Your task to perform on an android device: add a label to a message in the gmail app Image 0: 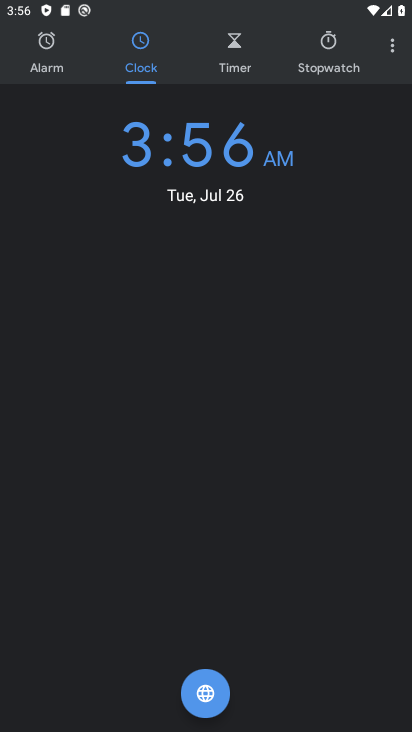
Step 0: press back button
Your task to perform on an android device: add a label to a message in the gmail app Image 1: 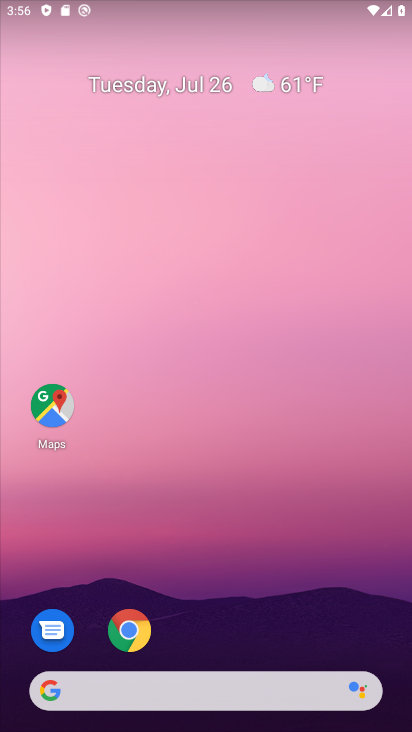
Step 1: drag from (291, 606) to (243, 97)
Your task to perform on an android device: add a label to a message in the gmail app Image 2: 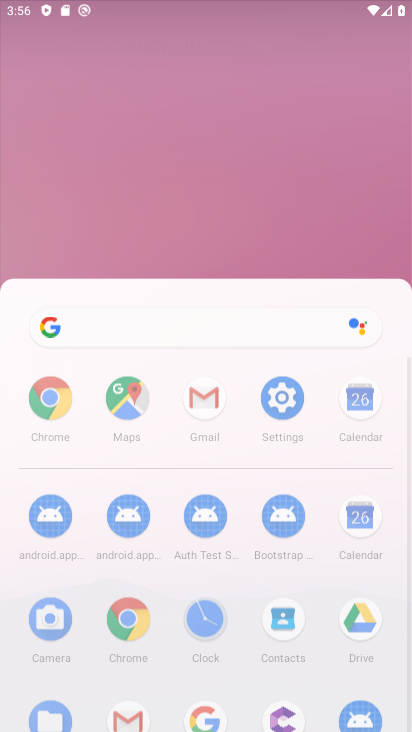
Step 2: drag from (242, 438) to (256, 146)
Your task to perform on an android device: add a label to a message in the gmail app Image 3: 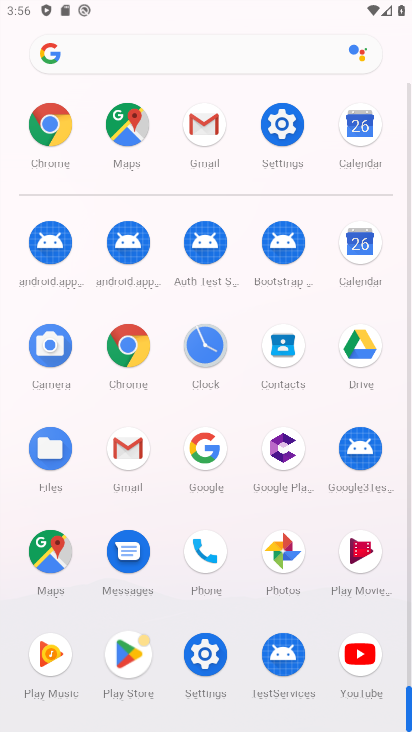
Step 3: drag from (269, 415) to (288, 74)
Your task to perform on an android device: add a label to a message in the gmail app Image 4: 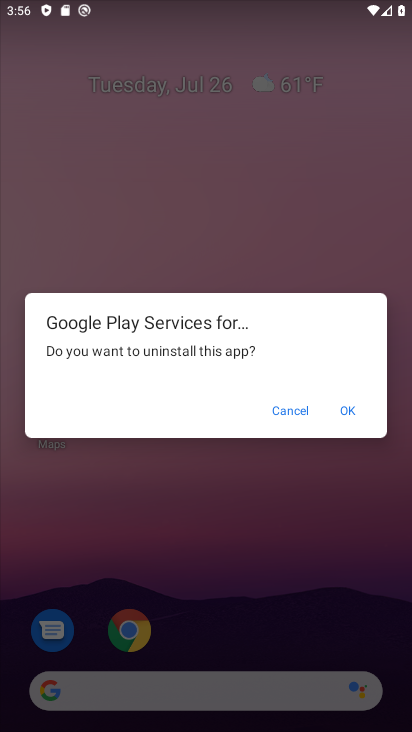
Step 4: drag from (168, 471) to (195, 83)
Your task to perform on an android device: add a label to a message in the gmail app Image 5: 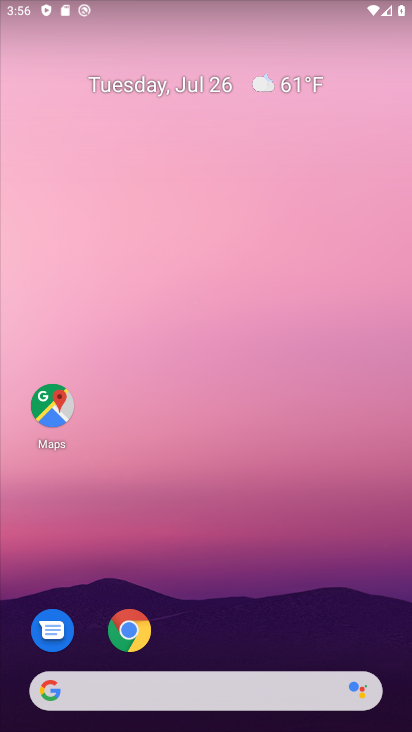
Step 5: drag from (232, 562) to (184, 11)
Your task to perform on an android device: add a label to a message in the gmail app Image 6: 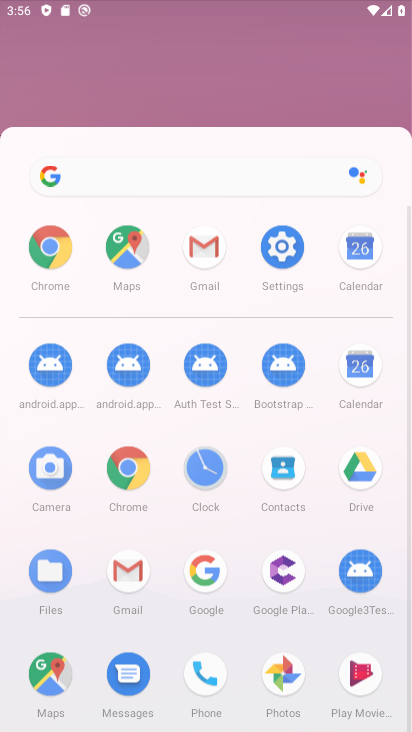
Step 6: drag from (268, 427) to (316, 29)
Your task to perform on an android device: add a label to a message in the gmail app Image 7: 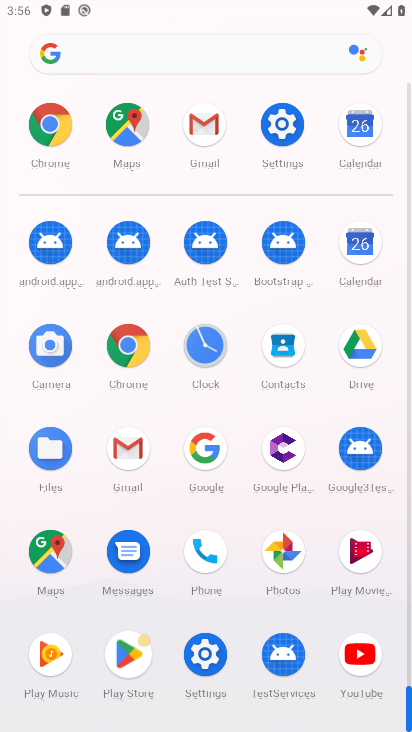
Step 7: drag from (262, 418) to (256, 33)
Your task to perform on an android device: add a label to a message in the gmail app Image 8: 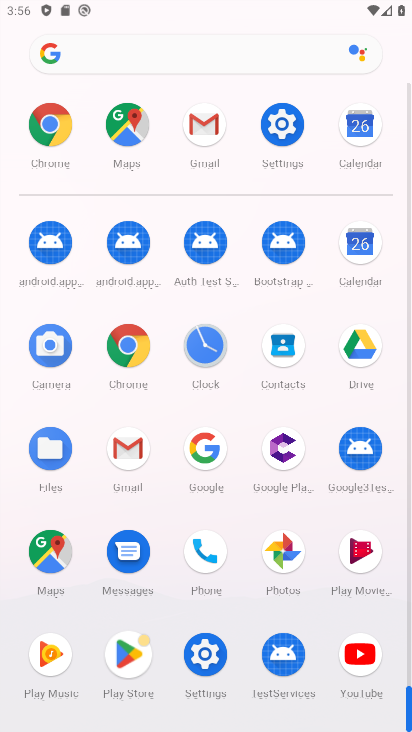
Step 8: click (122, 445)
Your task to perform on an android device: add a label to a message in the gmail app Image 9: 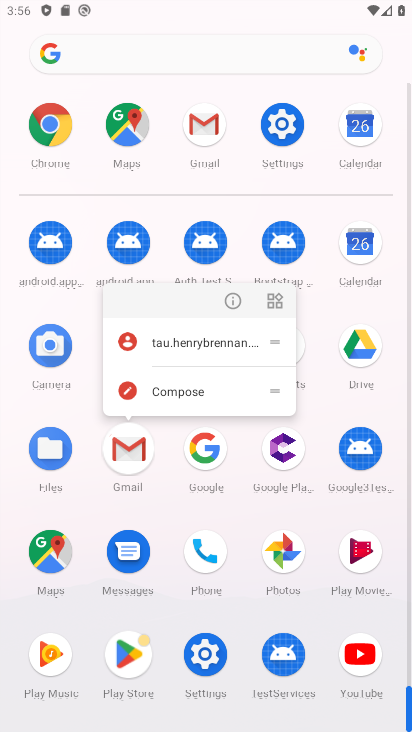
Step 9: click (125, 445)
Your task to perform on an android device: add a label to a message in the gmail app Image 10: 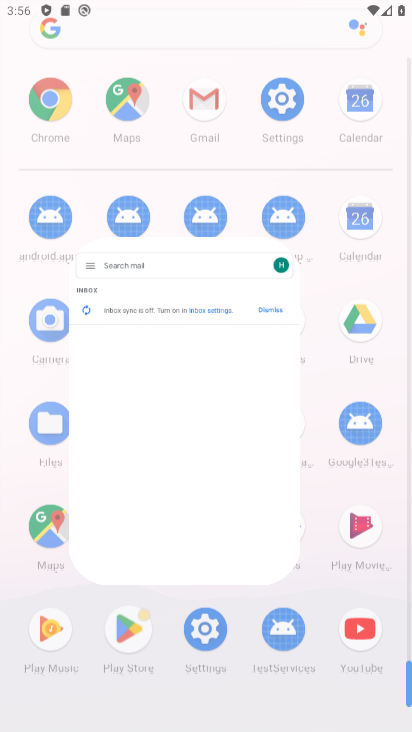
Step 10: click (123, 448)
Your task to perform on an android device: add a label to a message in the gmail app Image 11: 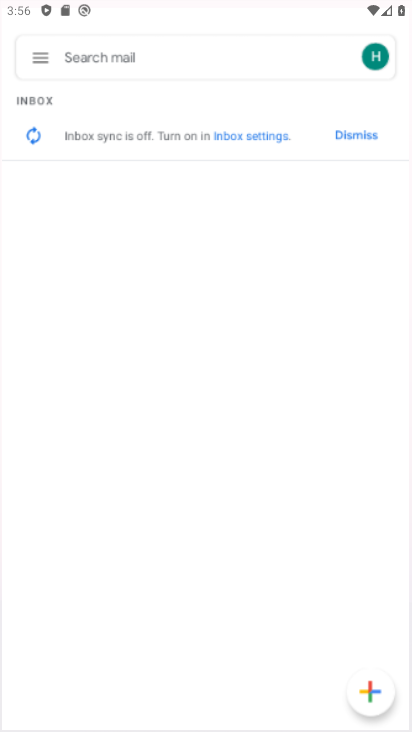
Step 11: click (124, 449)
Your task to perform on an android device: add a label to a message in the gmail app Image 12: 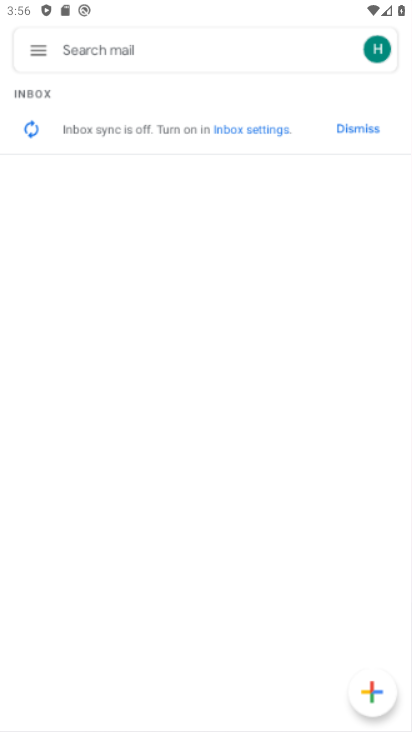
Step 12: click (126, 451)
Your task to perform on an android device: add a label to a message in the gmail app Image 13: 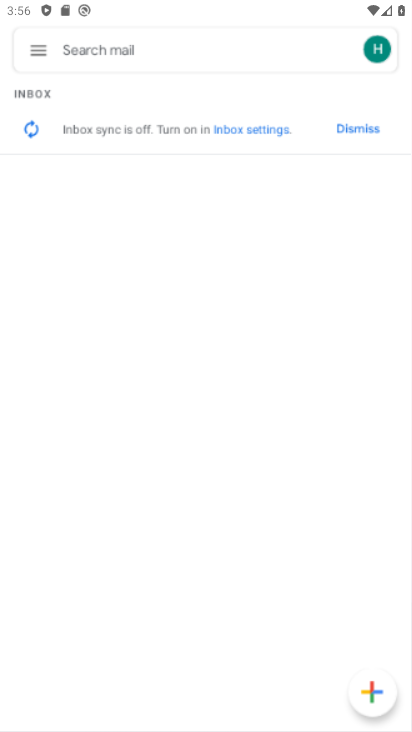
Step 13: click (130, 456)
Your task to perform on an android device: add a label to a message in the gmail app Image 14: 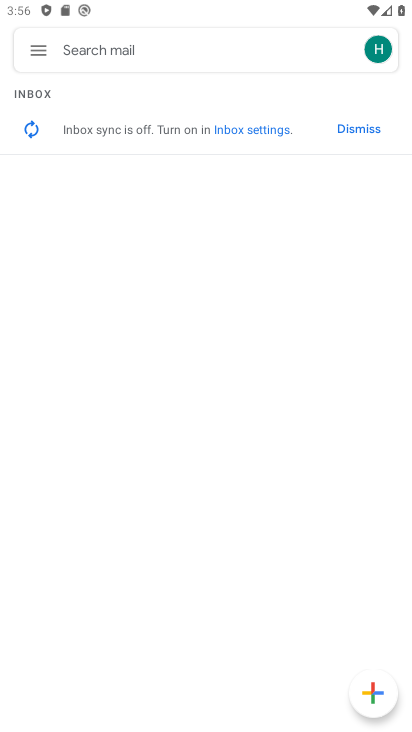
Step 14: click (38, 46)
Your task to perform on an android device: add a label to a message in the gmail app Image 15: 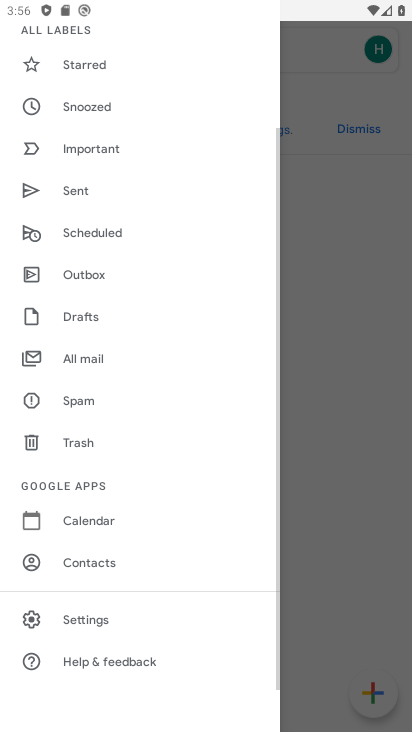
Step 15: click (290, 306)
Your task to perform on an android device: add a label to a message in the gmail app Image 16: 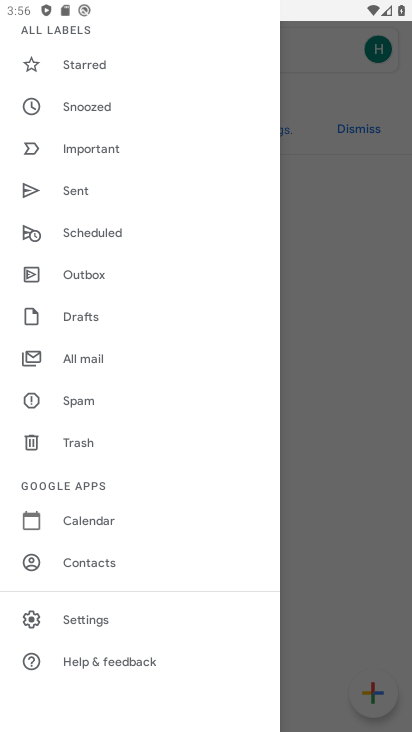
Step 16: click (313, 298)
Your task to perform on an android device: add a label to a message in the gmail app Image 17: 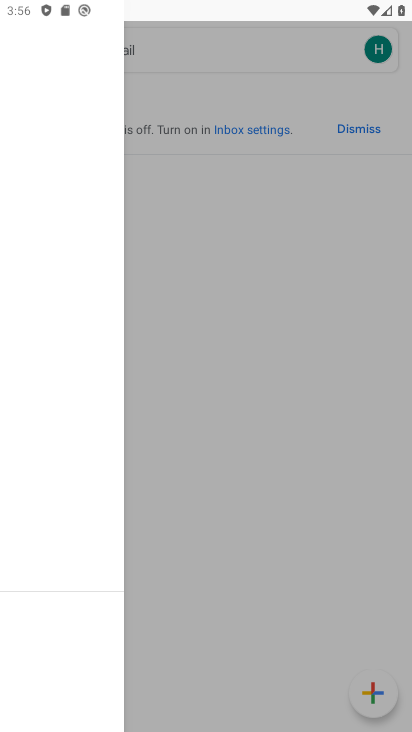
Step 17: click (312, 297)
Your task to perform on an android device: add a label to a message in the gmail app Image 18: 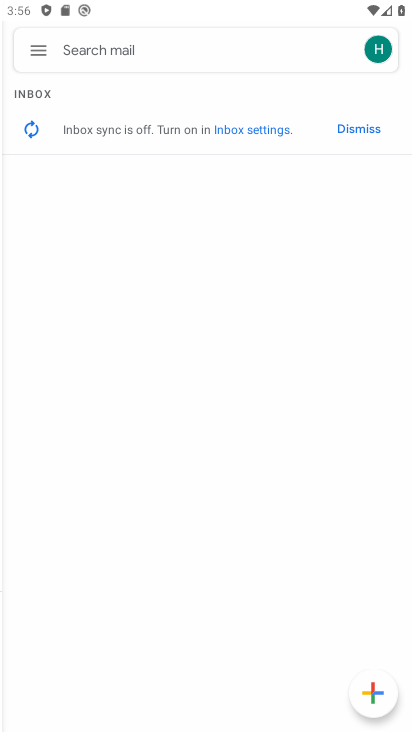
Step 18: click (319, 284)
Your task to perform on an android device: add a label to a message in the gmail app Image 19: 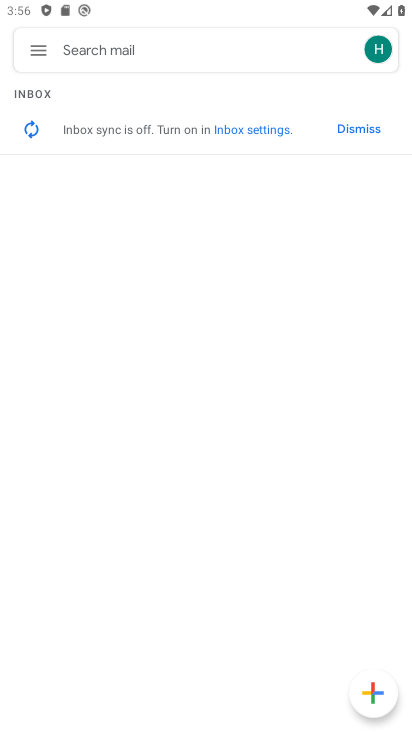
Step 19: click (316, 278)
Your task to perform on an android device: add a label to a message in the gmail app Image 20: 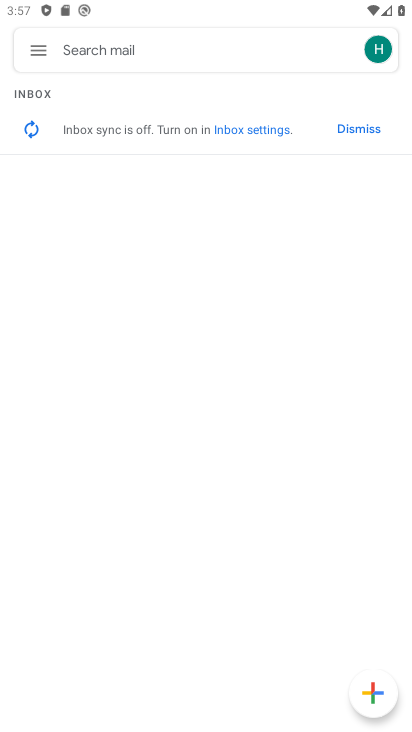
Step 20: click (206, 128)
Your task to perform on an android device: add a label to a message in the gmail app Image 21: 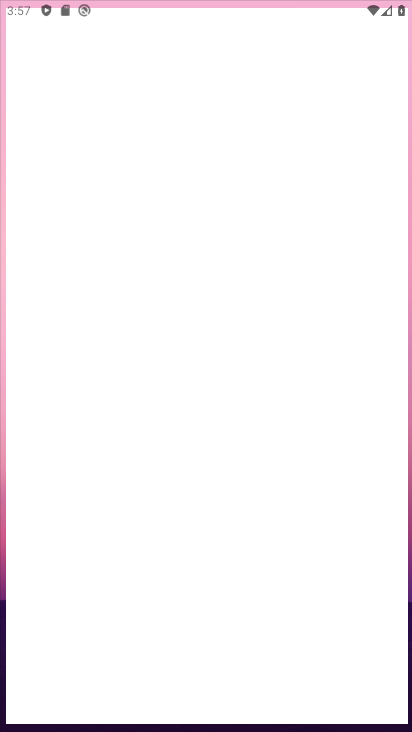
Step 21: click (43, 50)
Your task to perform on an android device: add a label to a message in the gmail app Image 22: 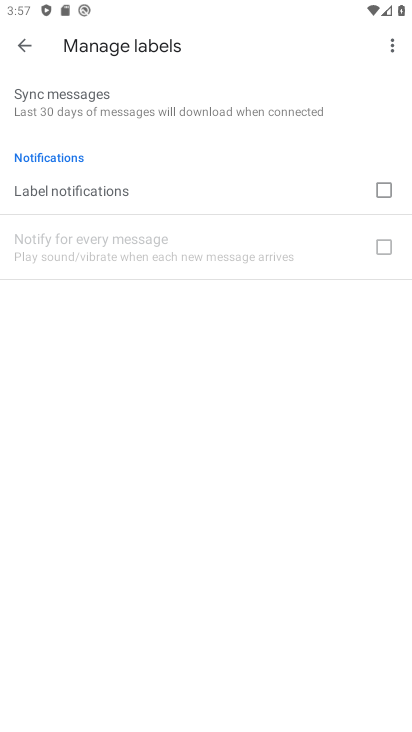
Step 22: click (21, 38)
Your task to perform on an android device: add a label to a message in the gmail app Image 23: 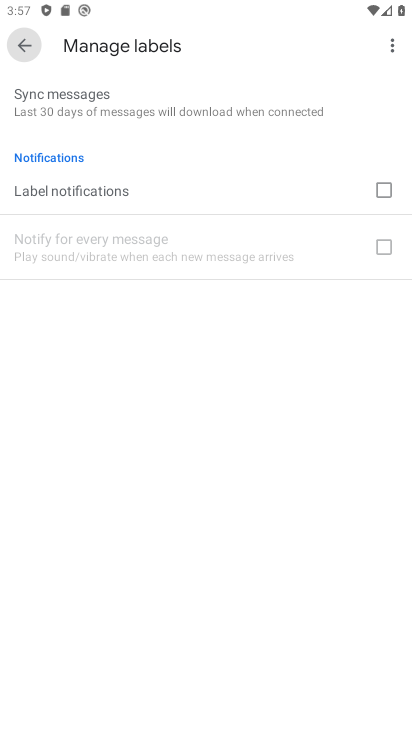
Step 23: click (21, 38)
Your task to perform on an android device: add a label to a message in the gmail app Image 24: 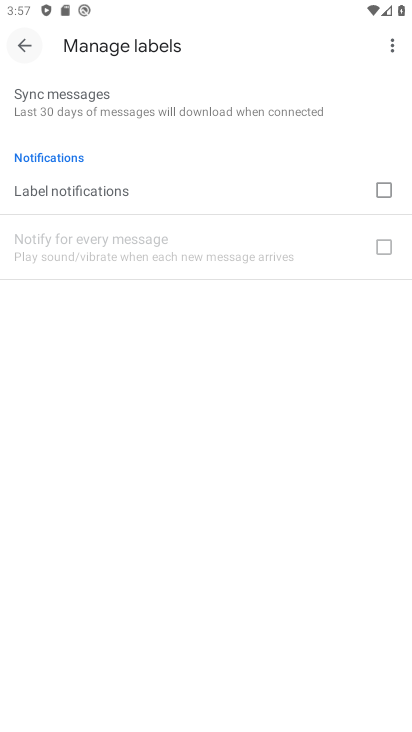
Step 24: click (21, 39)
Your task to perform on an android device: add a label to a message in the gmail app Image 25: 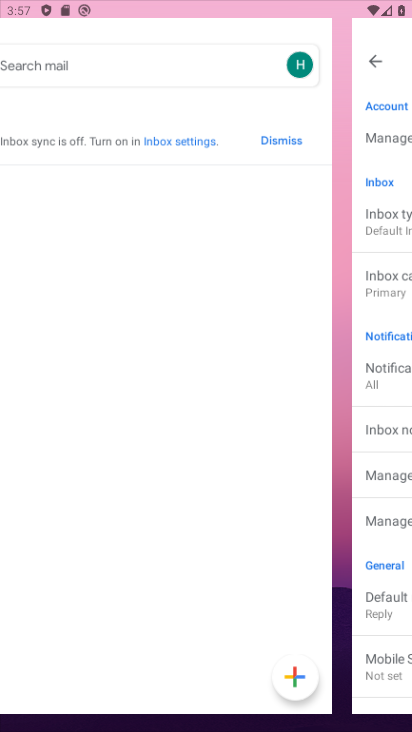
Step 25: click (24, 43)
Your task to perform on an android device: add a label to a message in the gmail app Image 26: 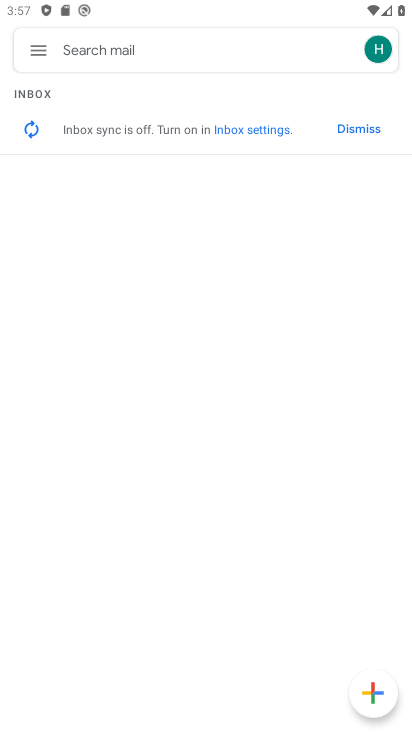
Step 26: click (31, 52)
Your task to perform on an android device: add a label to a message in the gmail app Image 27: 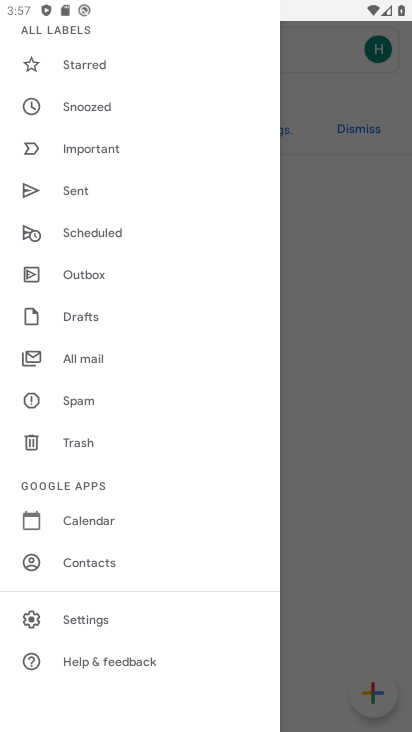
Step 27: click (81, 359)
Your task to perform on an android device: add a label to a message in the gmail app Image 28: 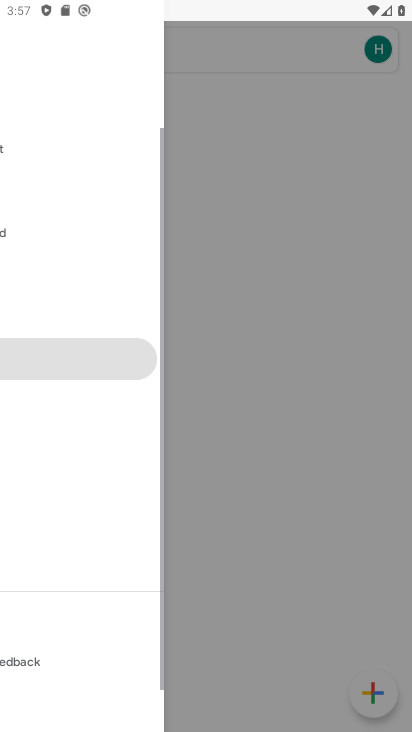
Step 28: click (79, 357)
Your task to perform on an android device: add a label to a message in the gmail app Image 29: 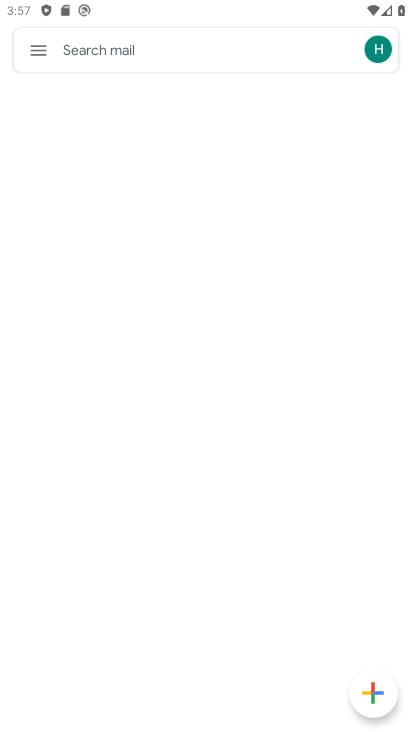
Step 29: click (88, 359)
Your task to perform on an android device: add a label to a message in the gmail app Image 30: 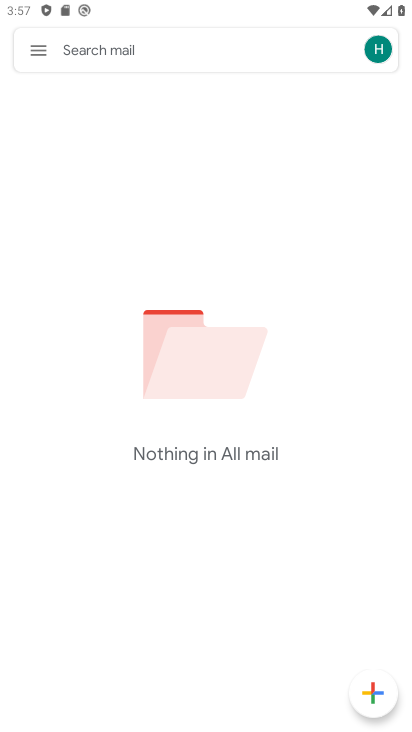
Step 30: task complete